Your task to perform on an android device: find which apps use the phone's location Image 0: 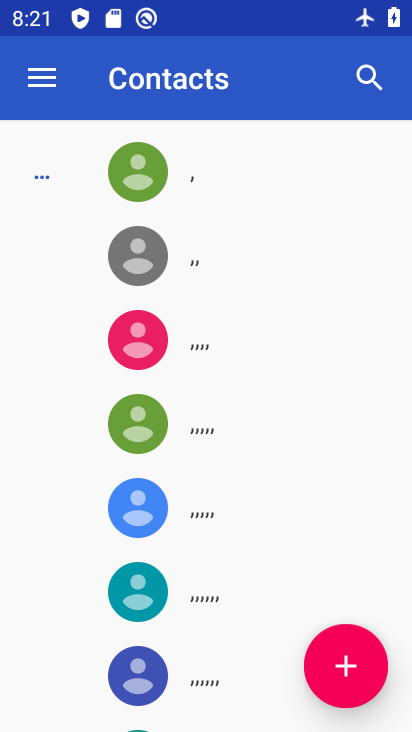
Step 0: press home button
Your task to perform on an android device: find which apps use the phone's location Image 1: 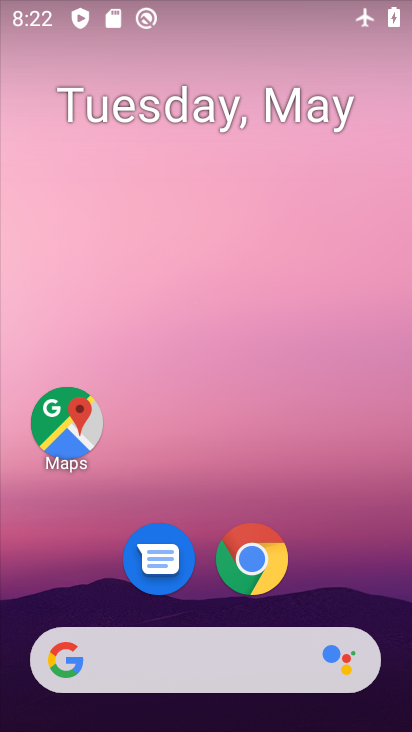
Step 1: drag from (204, 600) to (205, 313)
Your task to perform on an android device: find which apps use the phone's location Image 2: 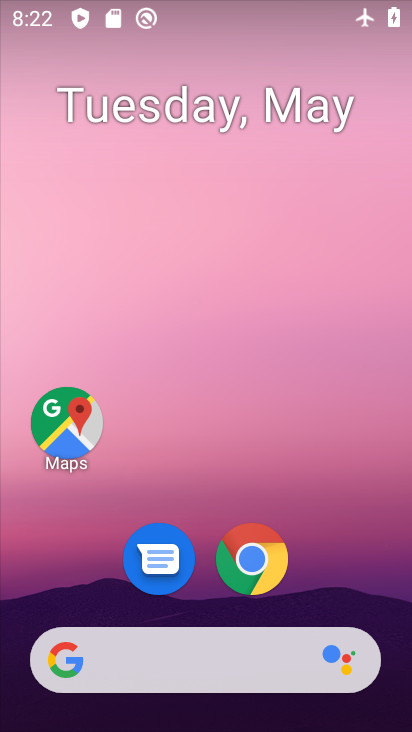
Step 2: drag from (201, 607) to (180, 193)
Your task to perform on an android device: find which apps use the phone's location Image 3: 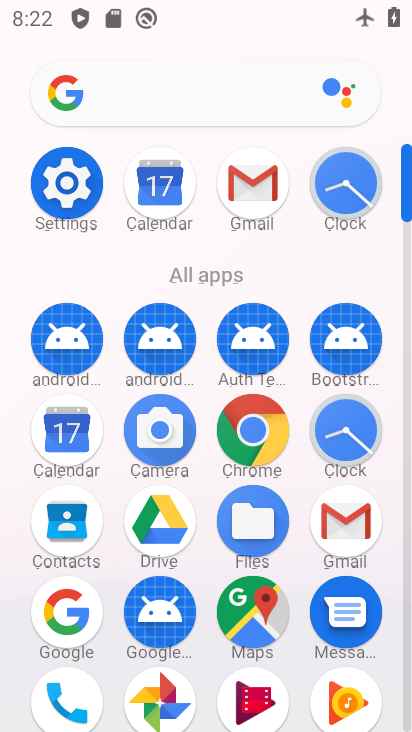
Step 3: click (69, 182)
Your task to perform on an android device: find which apps use the phone's location Image 4: 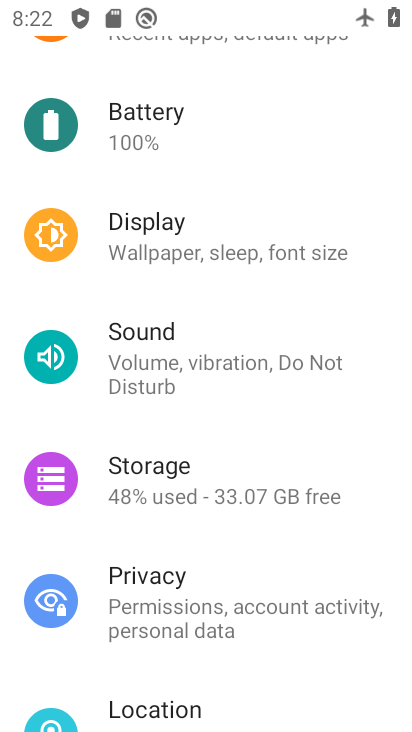
Step 4: click (226, 701)
Your task to perform on an android device: find which apps use the phone's location Image 5: 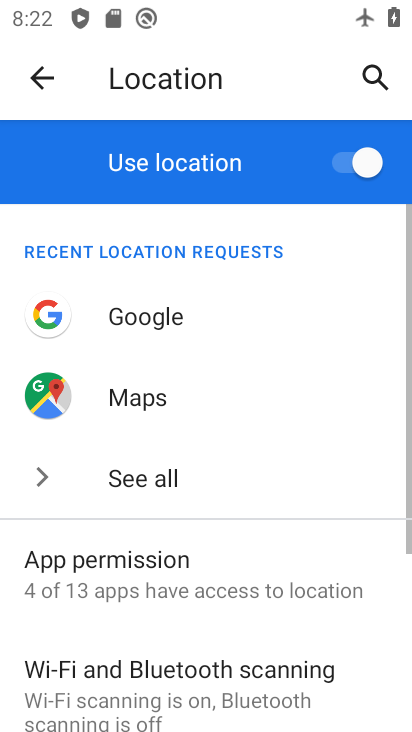
Step 5: drag from (272, 667) to (249, 442)
Your task to perform on an android device: find which apps use the phone's location Image 6: 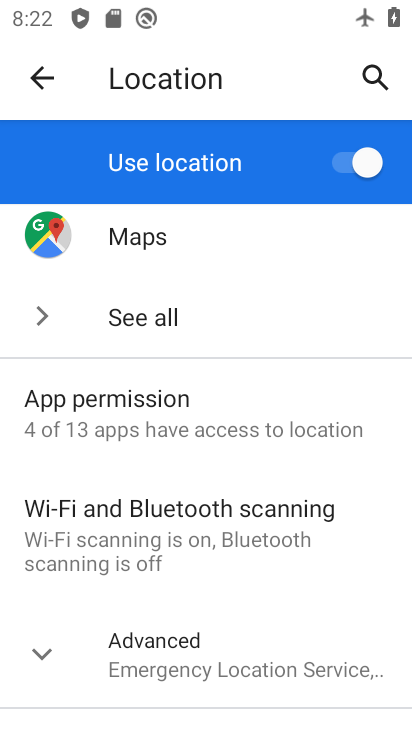
Step 6: click (214, 417)
Your task to perform on an android device: find which apps use the phone's location Image 7: 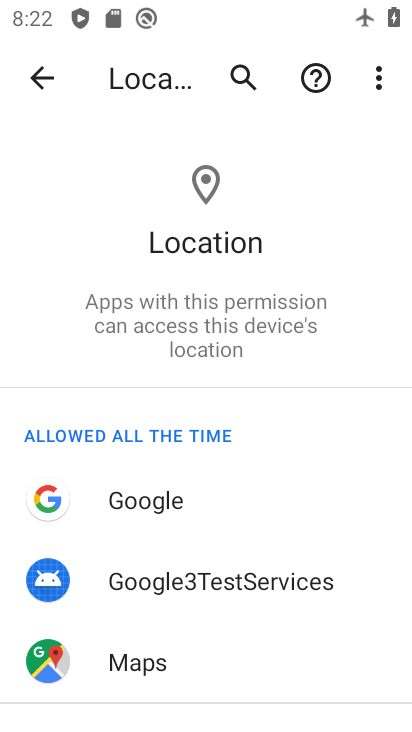
Step 7: task complete